Your task to perform on an android device: show emergency info Image 0: 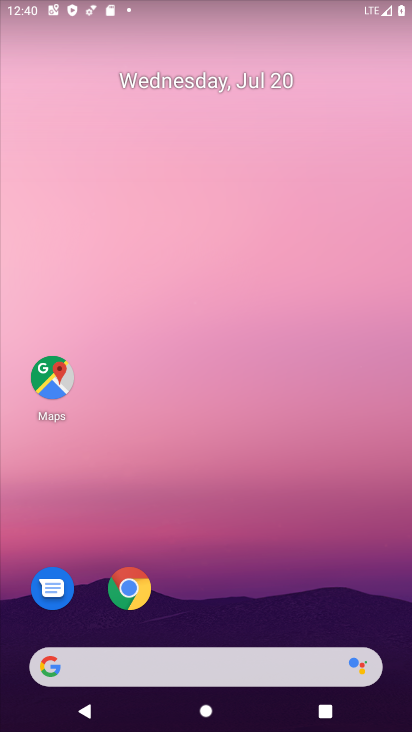
Step 0: drag from (407, 694) to (332, 158)
Your task to perform on an android device: show emergency info Image 1: 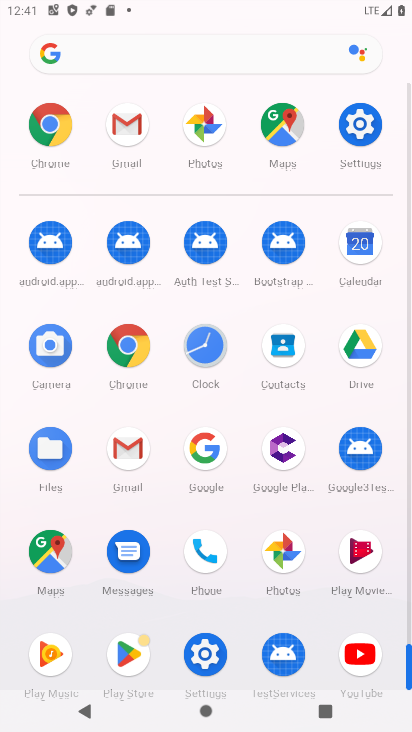
Step 1: click (200, 648)
Your task to perform on an android device: show emergency info Image 2: 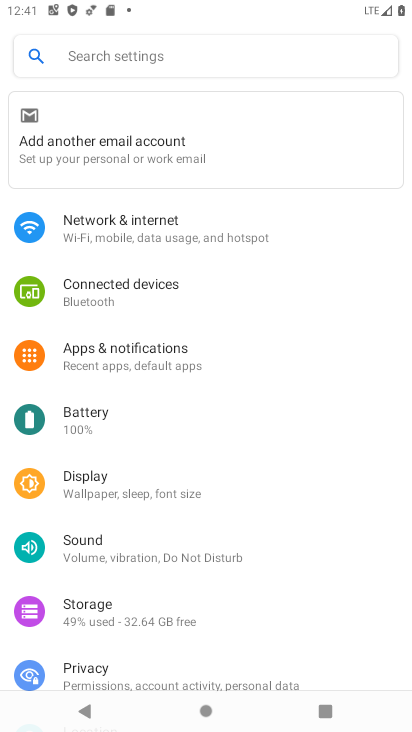
Step 2: drag from (258, 530) to (289, 212)
Your task to perform on an android device: show emergency info Image 3: 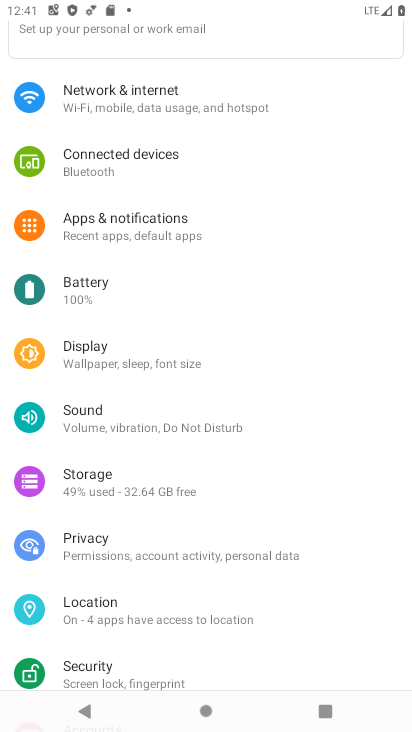
Step 3: drag from (252, 586) to (262, 211)
Your task to perform on an android device: show emergency info Image 4: 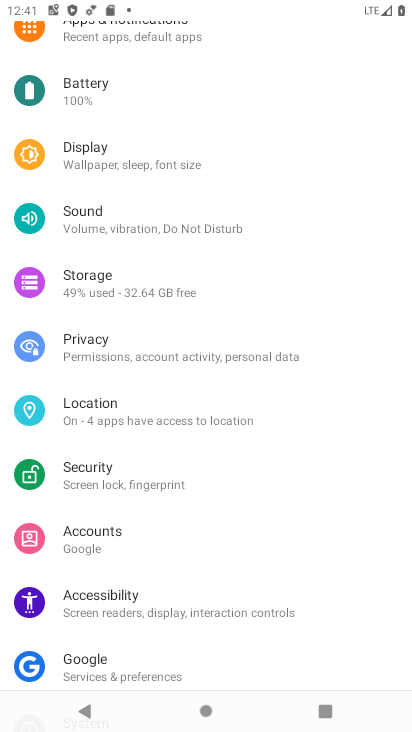
Step 4: drag from (287, 623) to (283, 266)
Your task to perform on an android device: show emergency info Image 5: 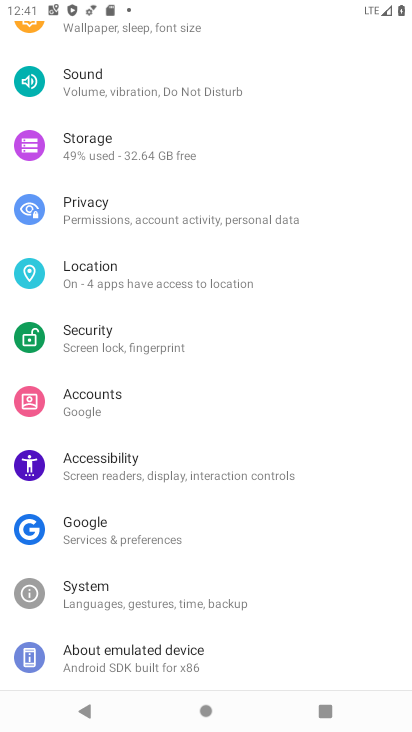
Step 5: click (119, 659)
Your task to perform on an android device: show emergency info Image 6: 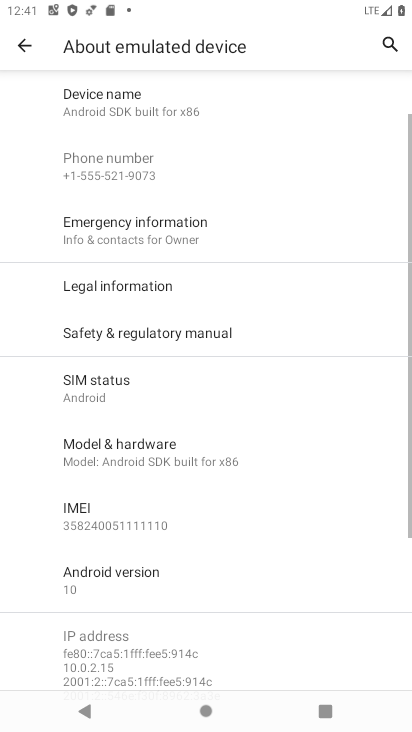
Step 6: click (171, 223)
Your task to perform on an android device: show emergency info Image 7: 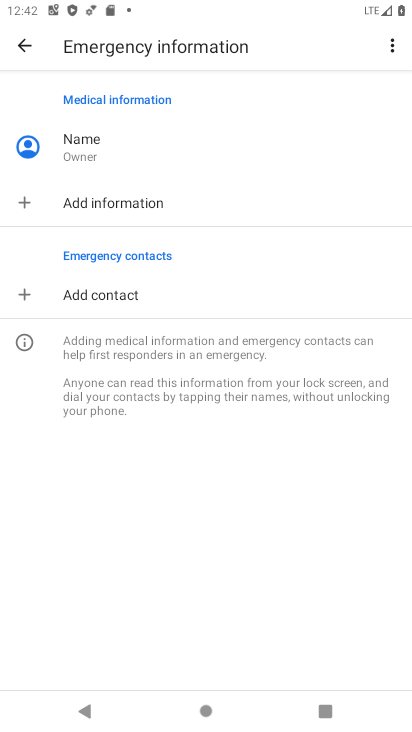
Step 7: task complete